Your task to perform on an android device: turn on bluetooth scan Image 0: 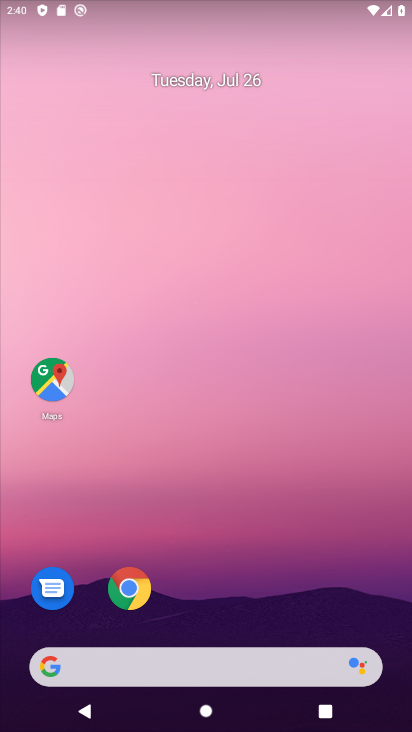
Step 0: drag from (309, 592) to (258, 71)
Your task to perform on an android device: turn on bluetooth scan Image 1: 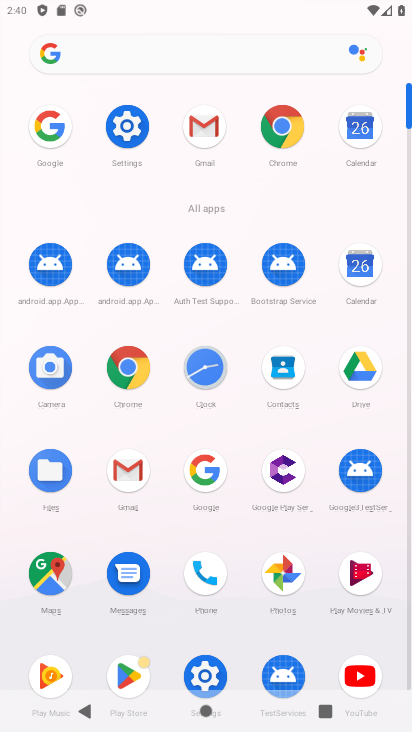
Step 1: click (141, 133)
Your task to perform on an android device: turn on bluetooth scan Image 2: 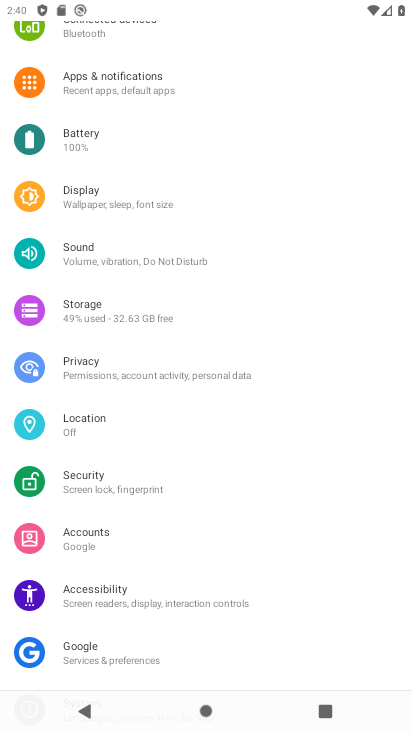
Step 2: click (76, 431)
Your task to perform on an android device: turn on bluetooth scan Image 3: 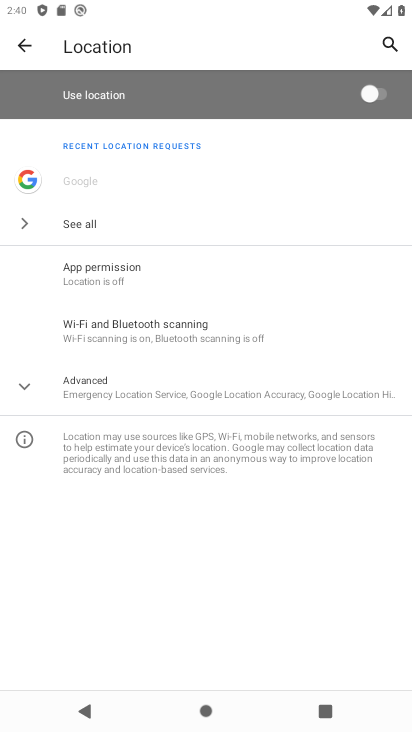
Step 3: click (80, 391)
Your task to perform on an android device: turn on bluetooth scan Image 4: 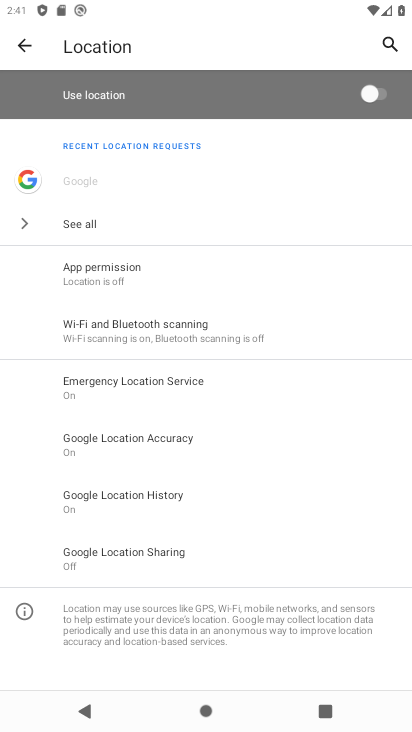
Step 4: click (108, 318)
Your task to perform on an android device: turn on bluetooth scan Image 5: 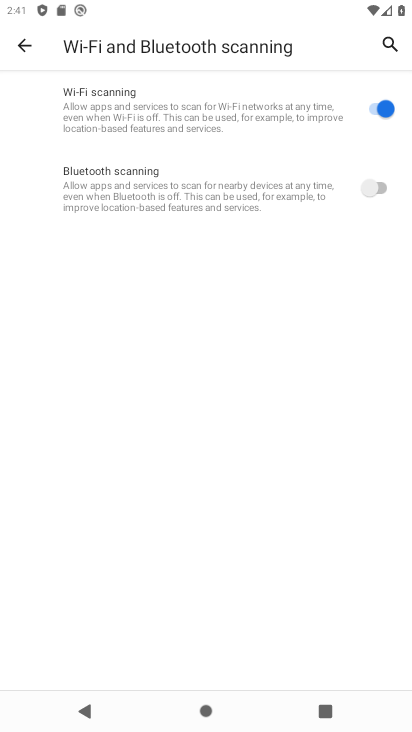
Step 5: click (370, 192)
Your task to perform on an android device: turn on bluetooth scan Image 6: 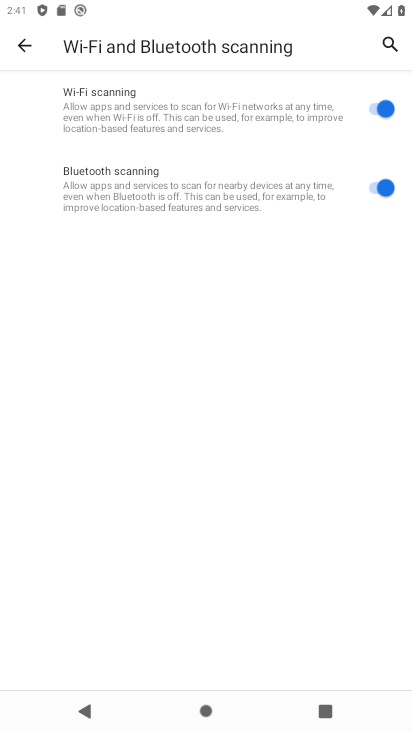
Step 6: task complete